Your task to perform on an android device: open app "Skype" (install if not already installed) Image 0: 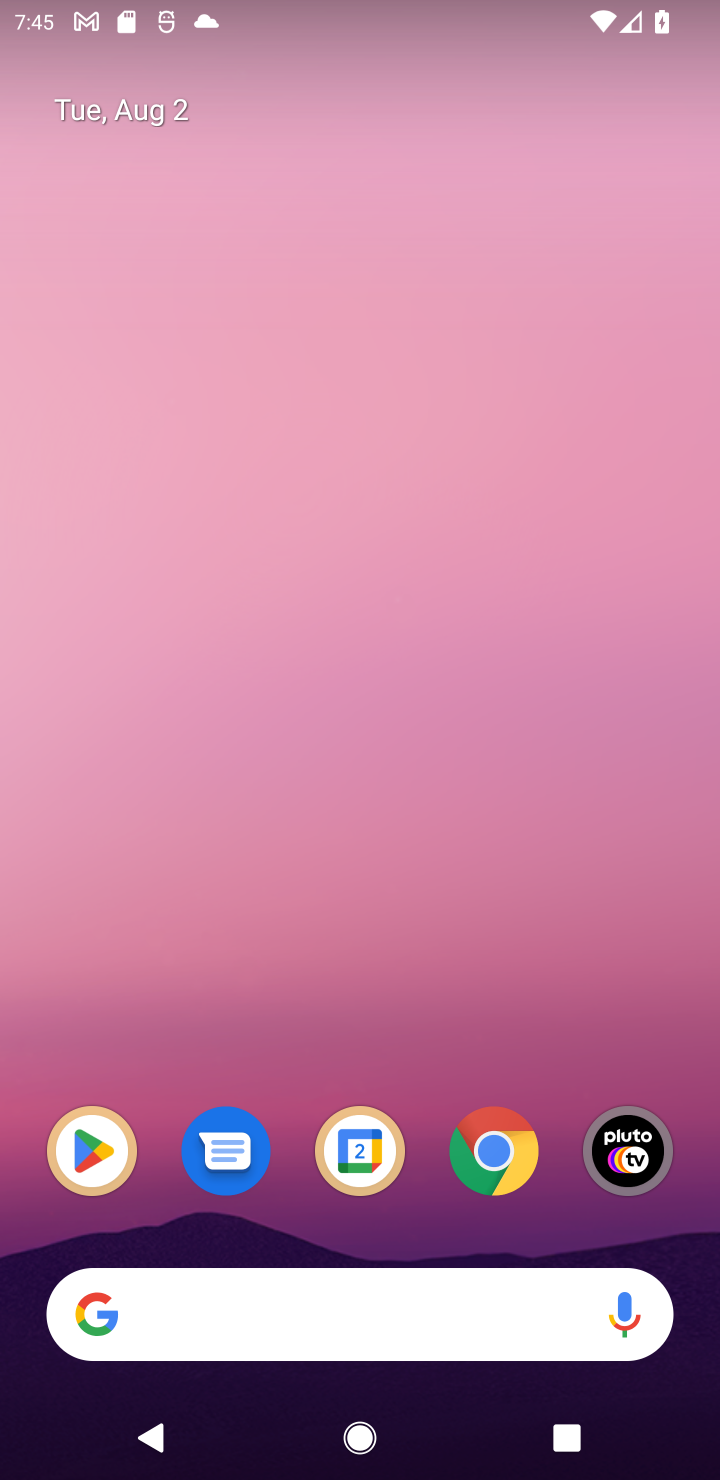
Step 0: drag from (396, 1170) to (404, 85)
Your task to perform on an android device: open app "Skype" (install if not already installed) Image 1: 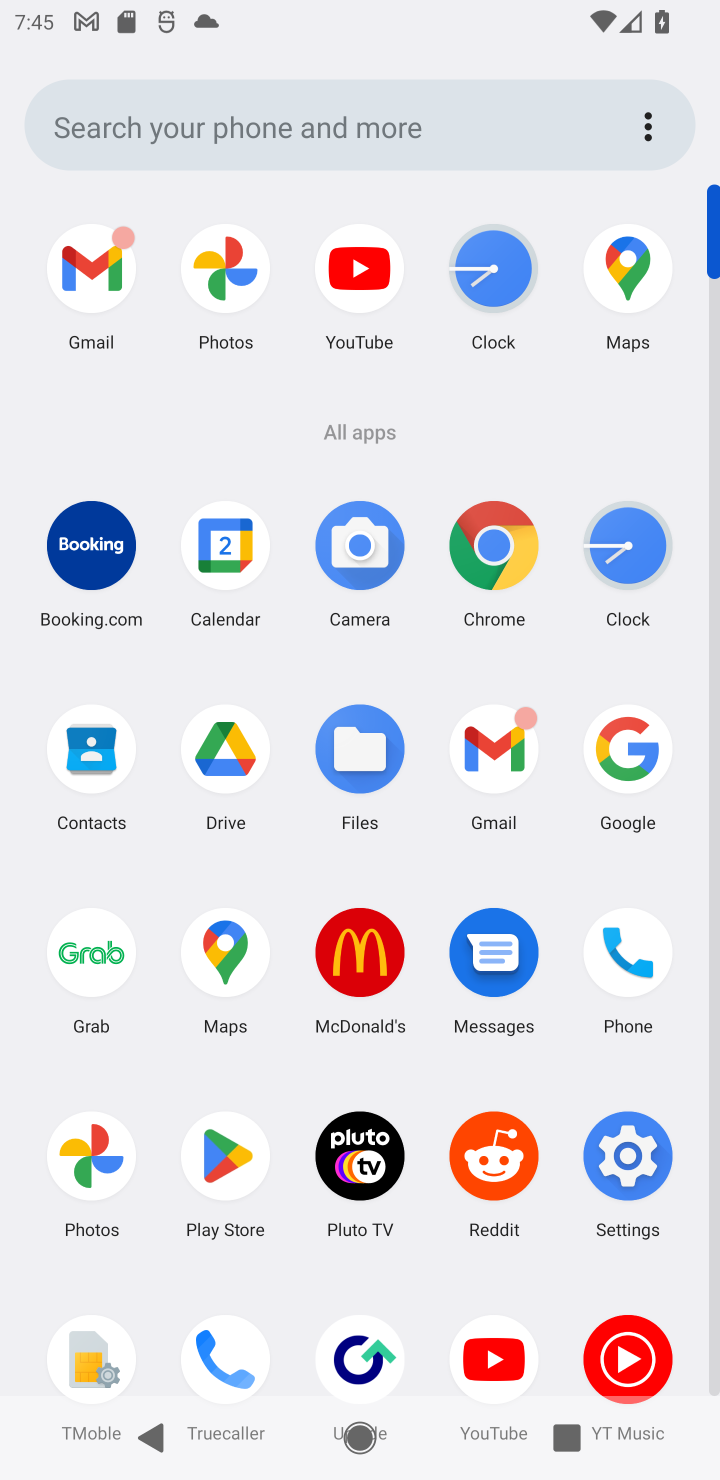
Step 1: click (207, 1161)
Your task to perform on an android device: open app "Skype" (install if not already installed) Image 2: 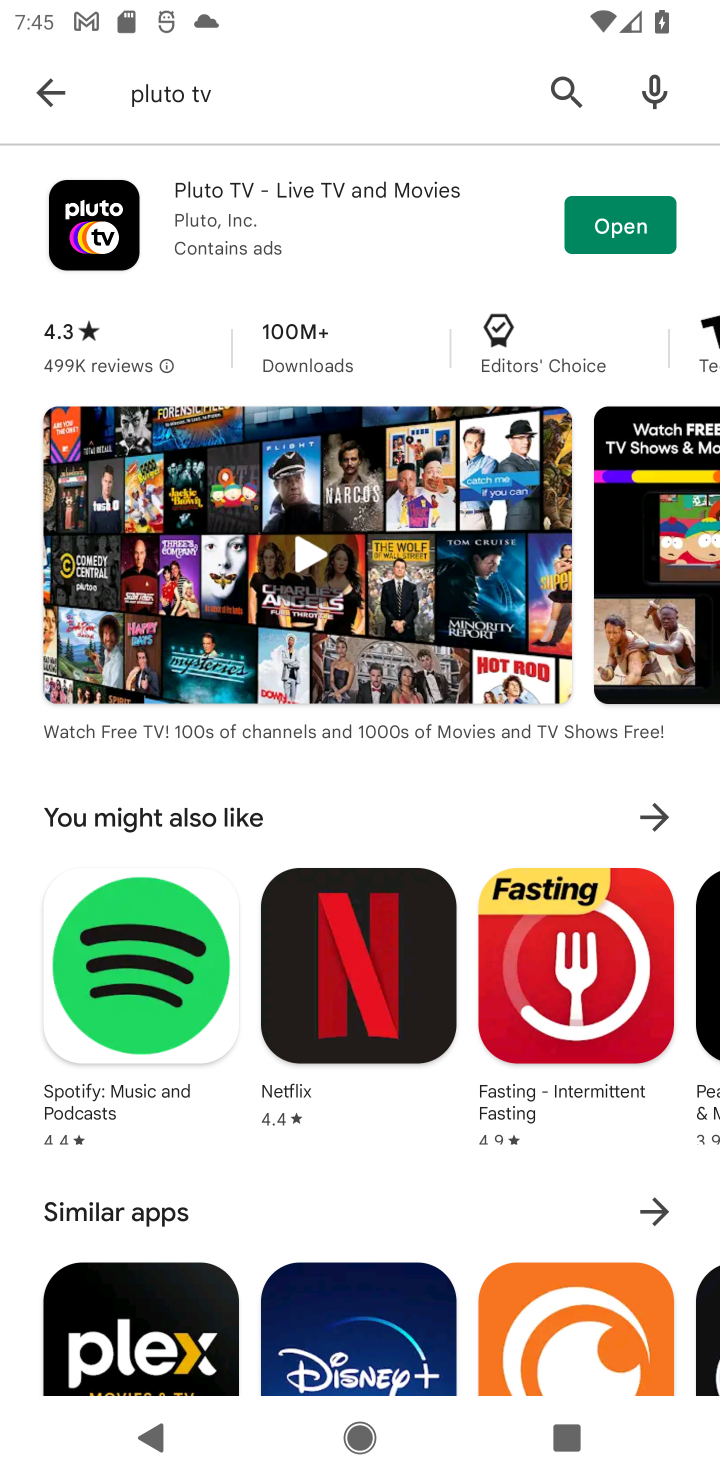
Step 2: click (62, 97)
Your task to perform on an android device: open app "Skype" (install if not already installed) Image 3: 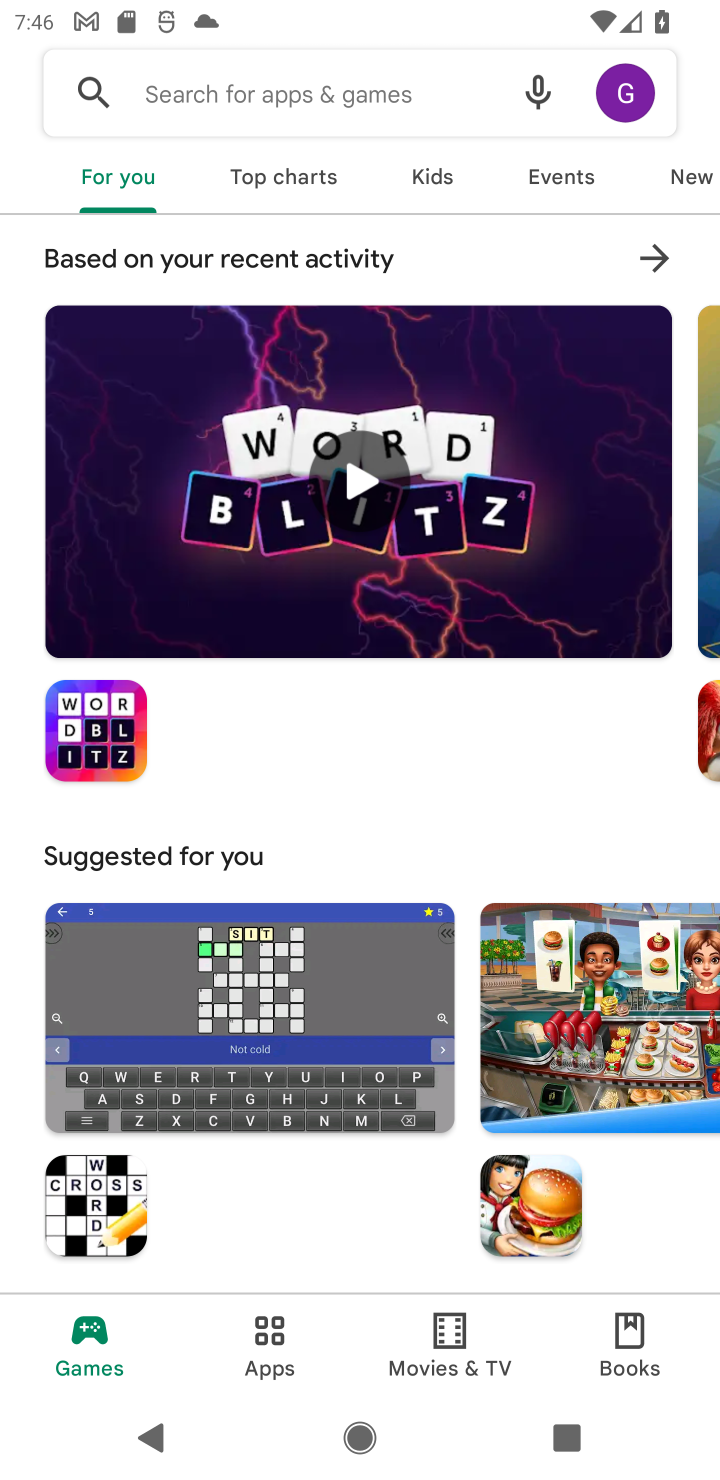
Step 3: click (162, 90)
Your task to perform on an android device: open app "Skype" (install if not already installed) Image 4: 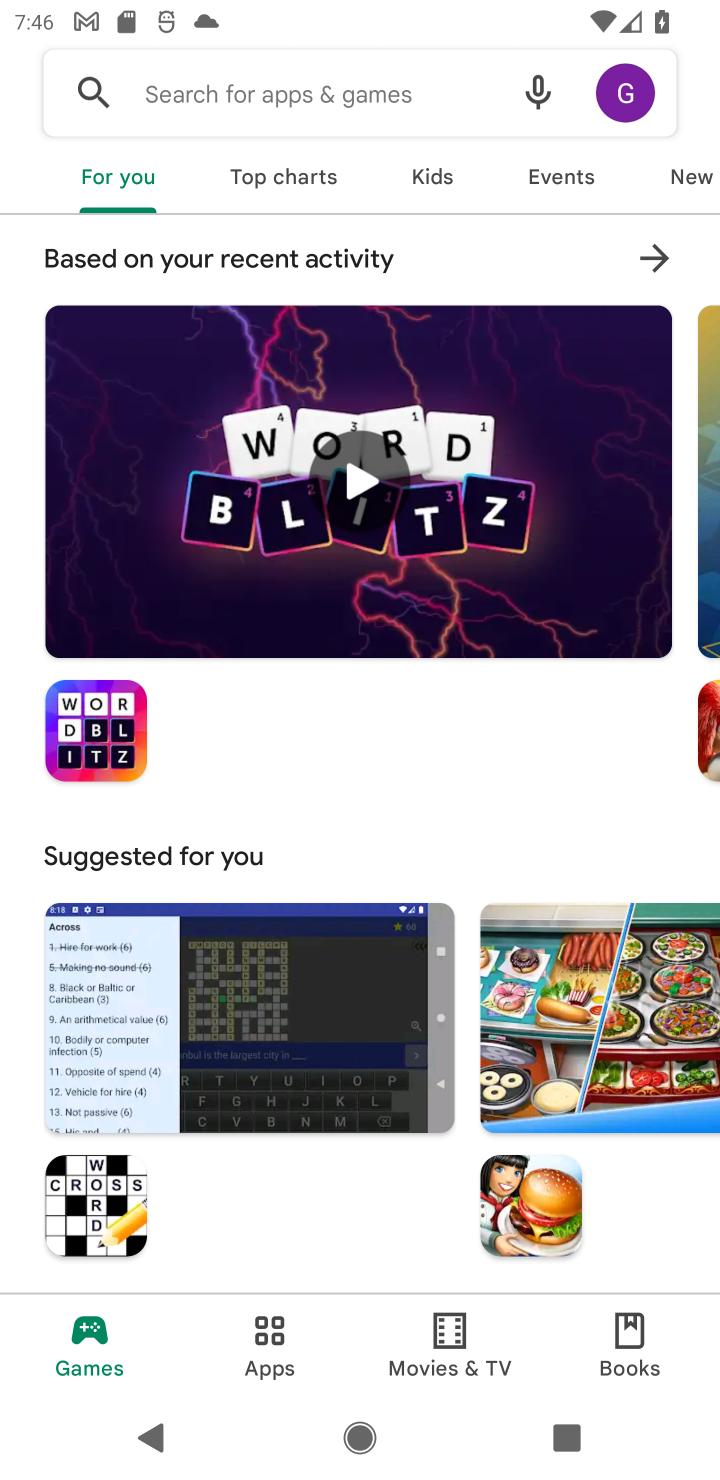
Step 4: click (307, 1404)
Your task to perform on an android device: open app "Skype" (install if not already installed) Image 5: 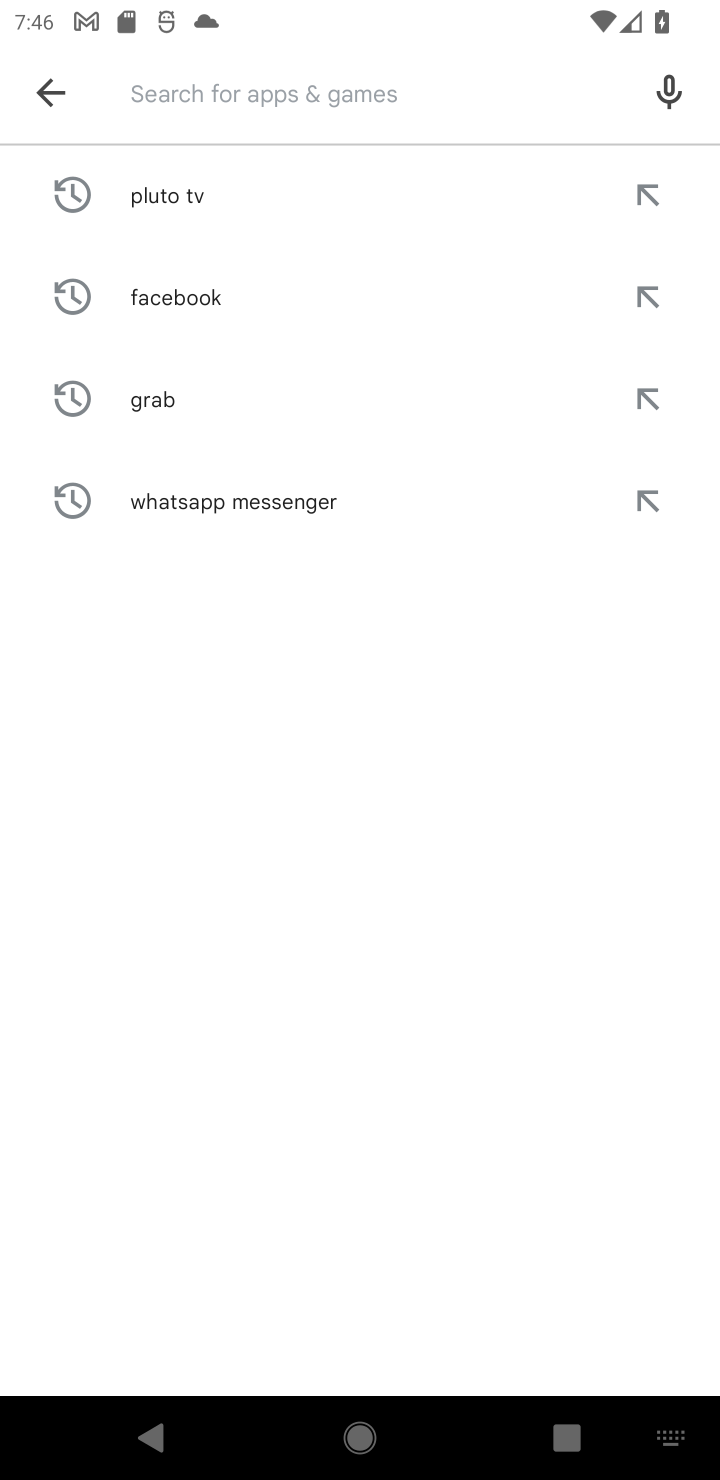
Step 5: type "Skype"
Your task to perform on an android device: open app "Skype" (install if not already installed) Image 6: 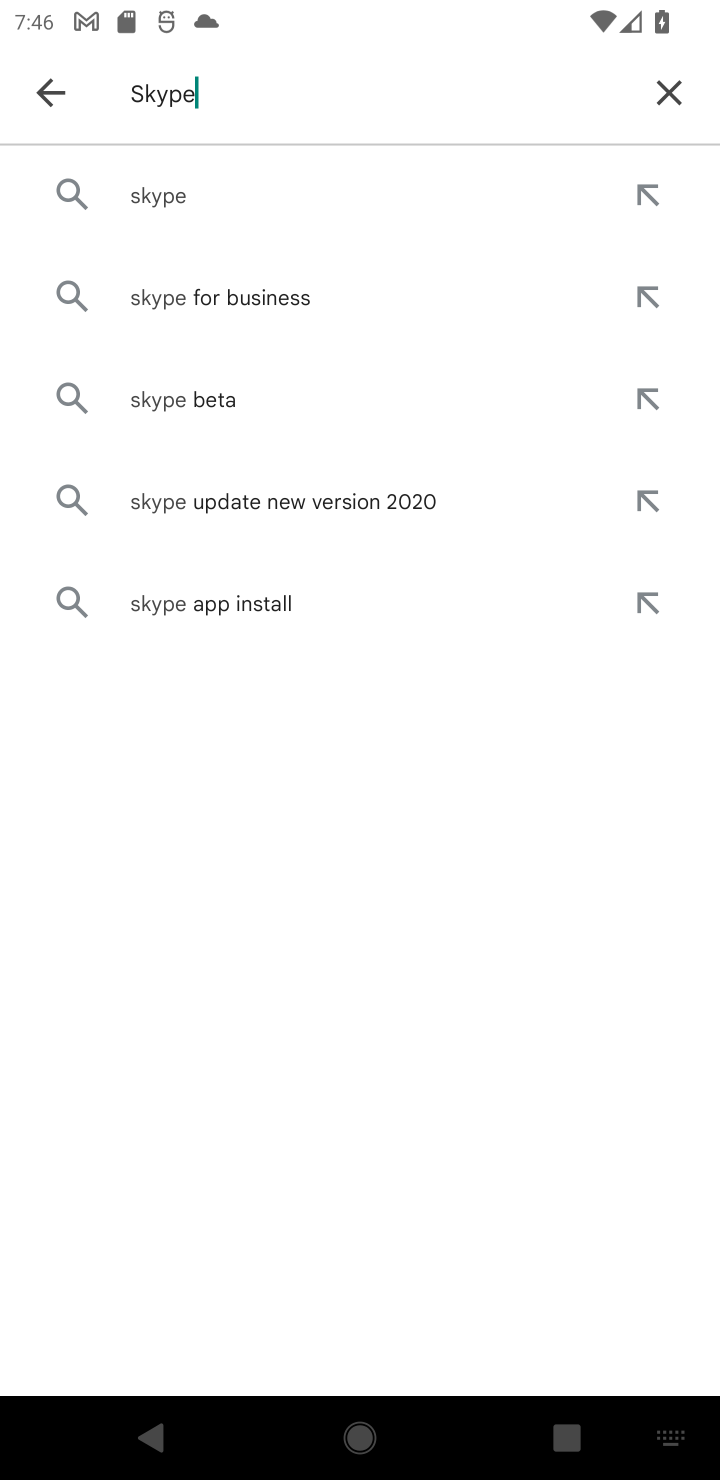
Step 6: click (269, 186)
Your task to perform on an android device: open app "Skype" (install if not already installed) Image 7: 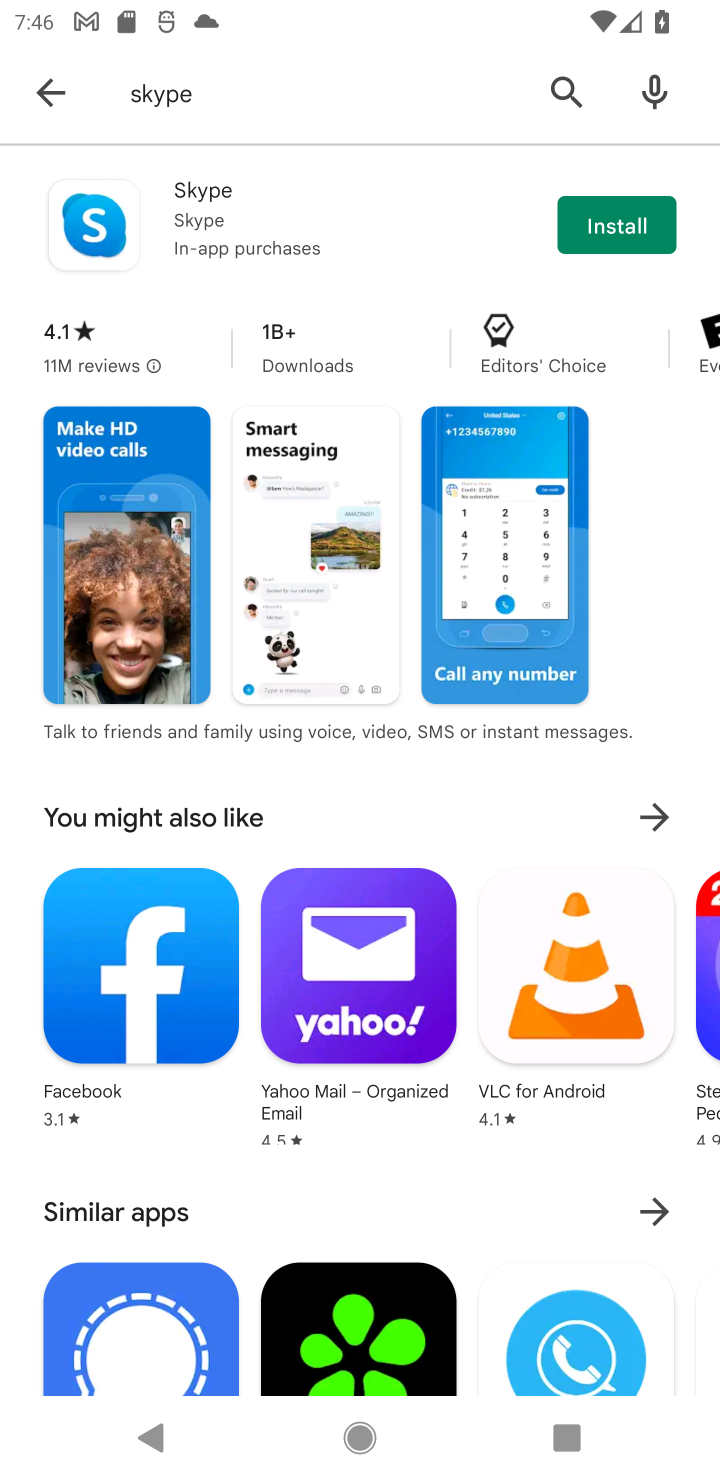
Step 7: click (588, 246)
Your task to perform on an android device: open app "Skype" (install if not already installed) Image 8: 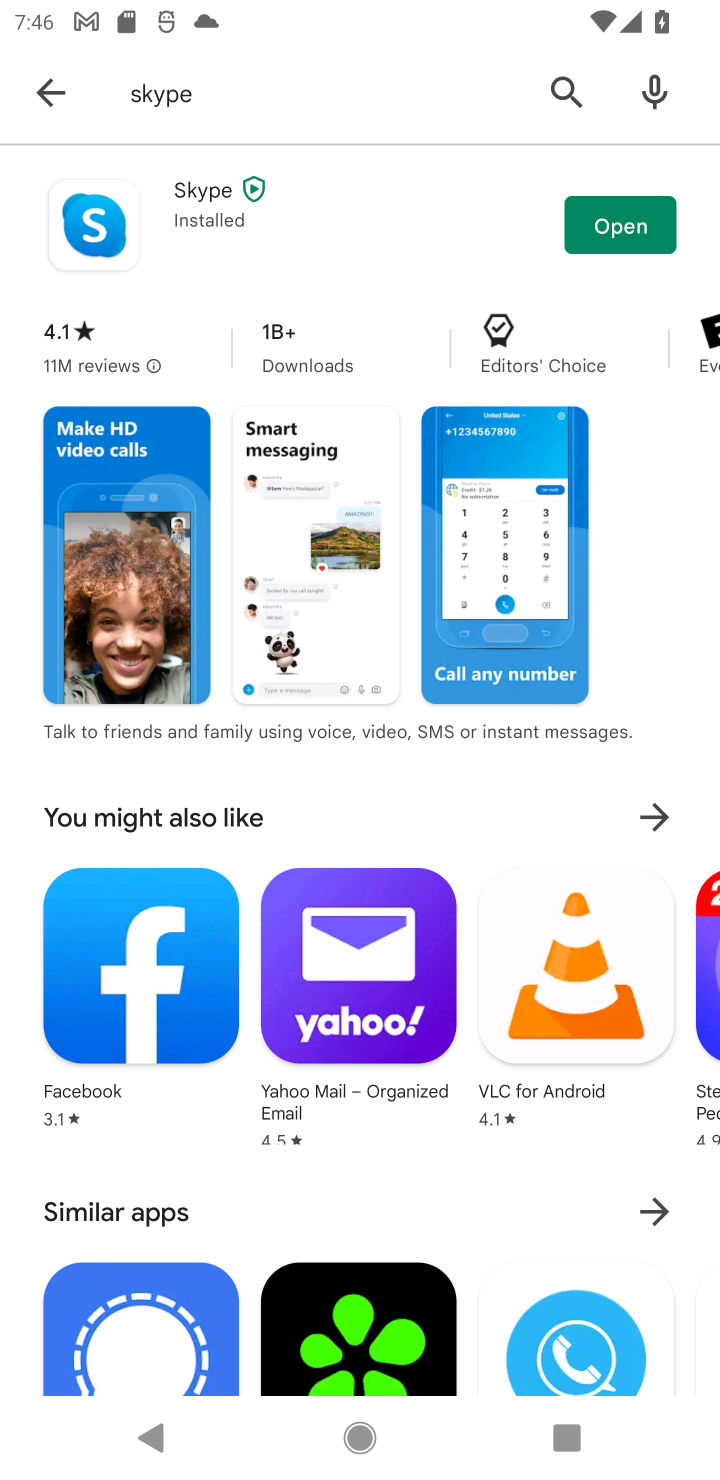
Step 8: task complete